Your task to perform on an android device: toggle improve location accuracy Image 0: 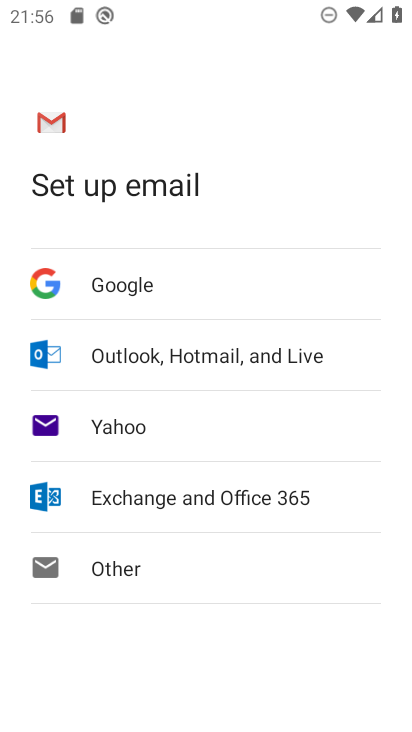
Step 0: press home button
Your task to perform on an android device: toggle improve location accuracy Image 1: 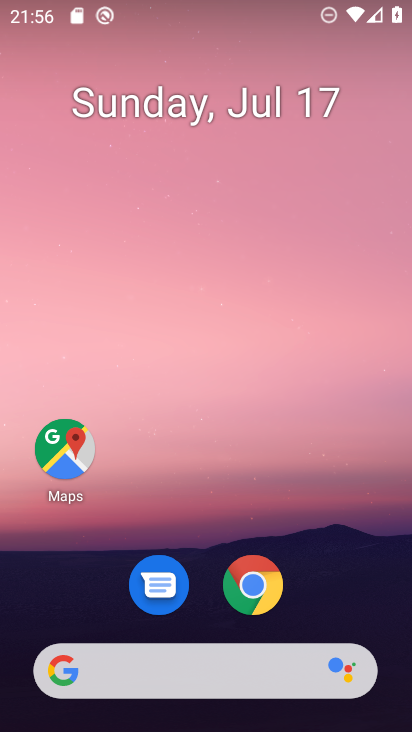
Step 1: drag from (171, 684) to (255, 6)
Your task to perform on an android device: toggle improve location accuracy Image 2: 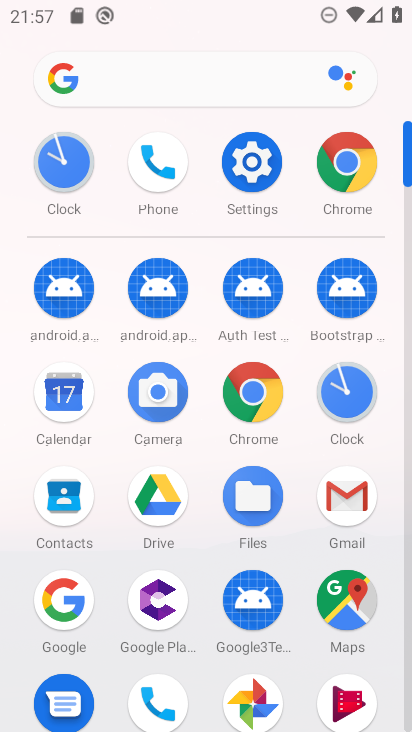
Step 2: click (251, 161)
Your task to perform on an android device: toggle improve location accuracy Image 3: 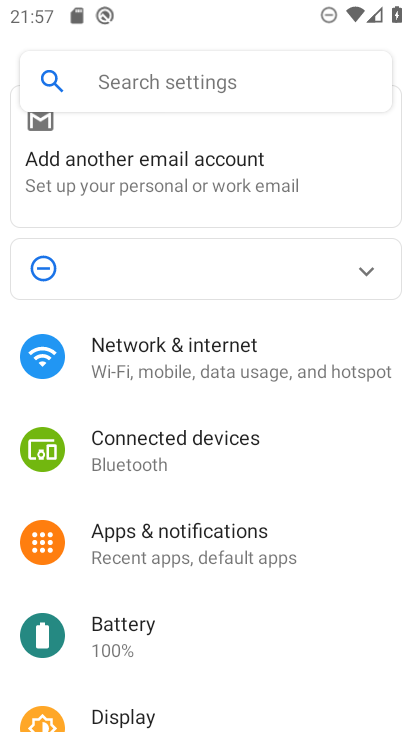
Step 3: drag from (289, 655) to (345, 102)
Your task to perform on an android device: toggle improve location accuracy Image 4: 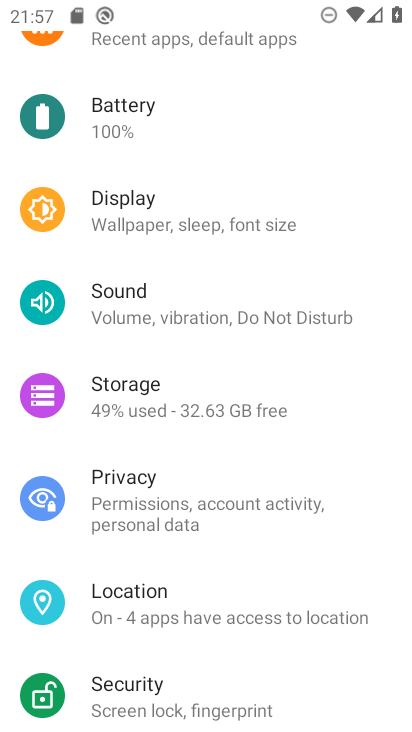
Step 4: click (177, 612)
Your task to perform on an android device: toggle improve location accuracy Image 5: 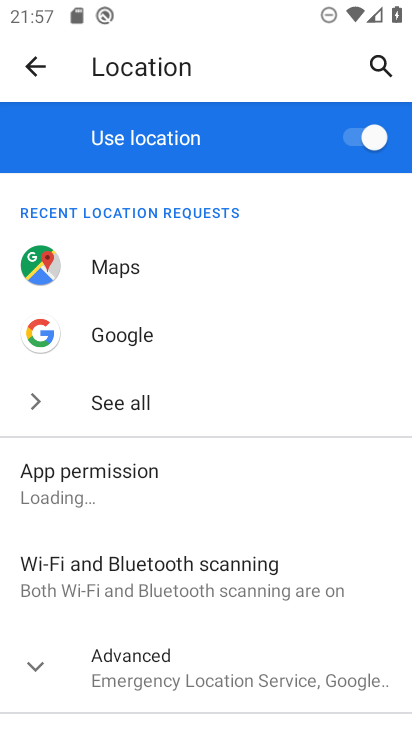
Step 5: drag from (275, 608) to (336, 172)
Your task to perform on an android device: toggle improve location accuracy Image 6: 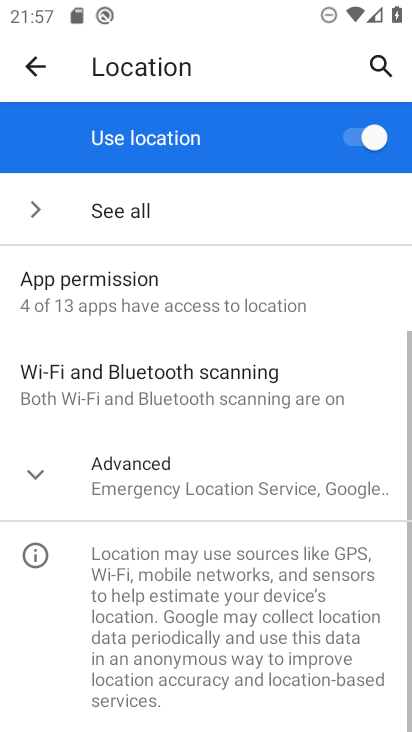
Step 6: click (162, 482)
Your task to perform on an android device: toggle improve location accuracy Image 7: 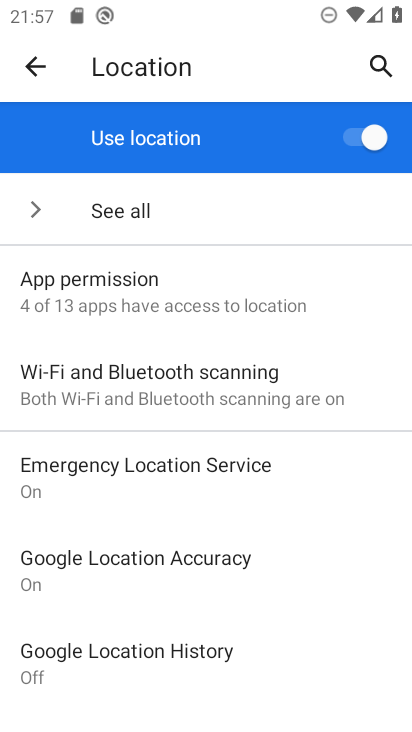
Step 7: click (197, 563)
Your task to perform on an android device: toggle improve location accuracy Image 8: 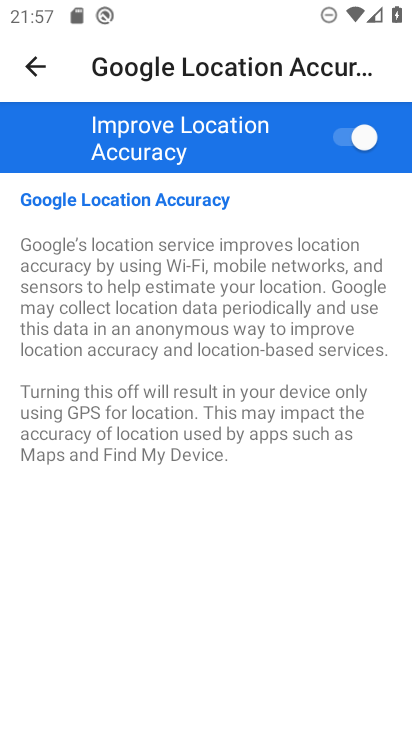
Step 8: click (347, 135)
Your task to perform on an android device: toggle improve location accuracy Image 9: 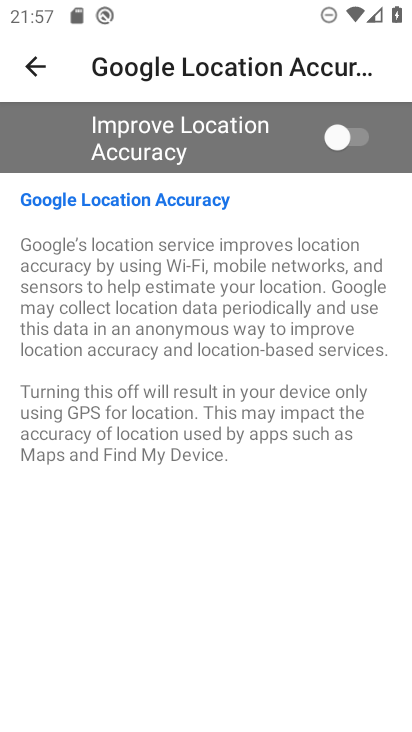
Step 9: task complete